Your task to perform on an android device: Go to Yahoo.com Image 0: 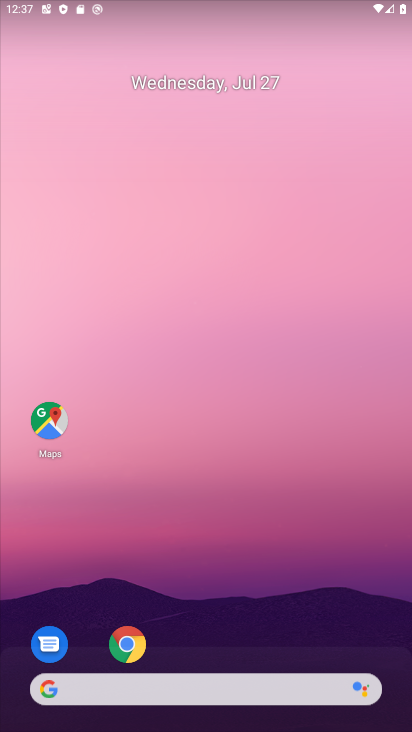
Step 0: click (128, 644)
Your task to perform on an android device: Go to Yahoo.com Image 1: 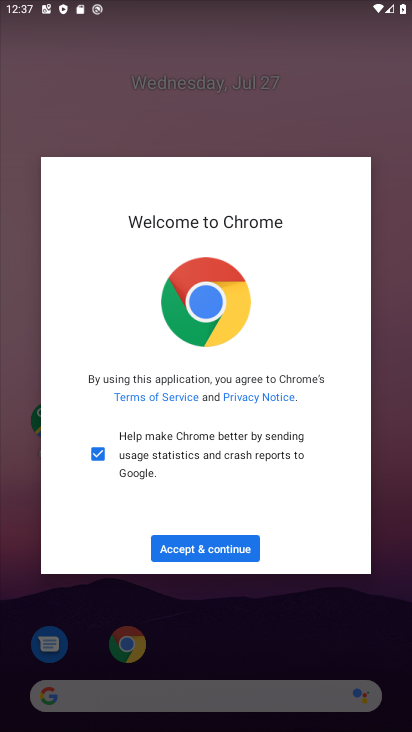
Step 1: click (214, 541)
Your task to perform on an android device: Go to Yahoo.com Image 2: 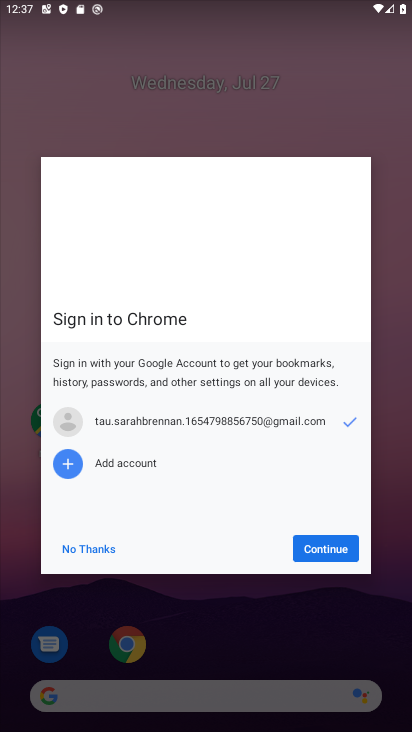
Step 2: click (322, 553)
Your task to perform on an android device: Go to Yahoo.com Image 3: 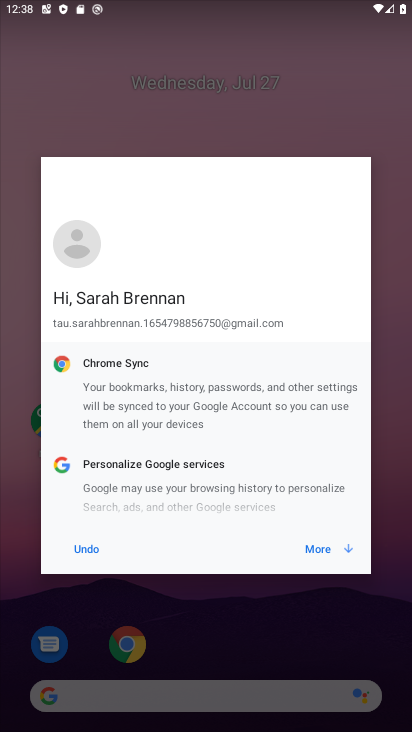
Step 3: click (323, 551)
Your task to perform on an android device: Go to Yahoo.com Image 4: 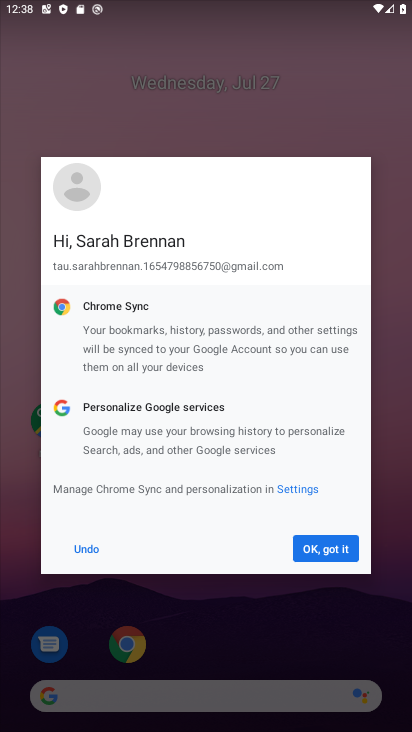
Step 4: click (323, 551)
Your task to perform on an android device: Go to Yahoo.com Image 5: 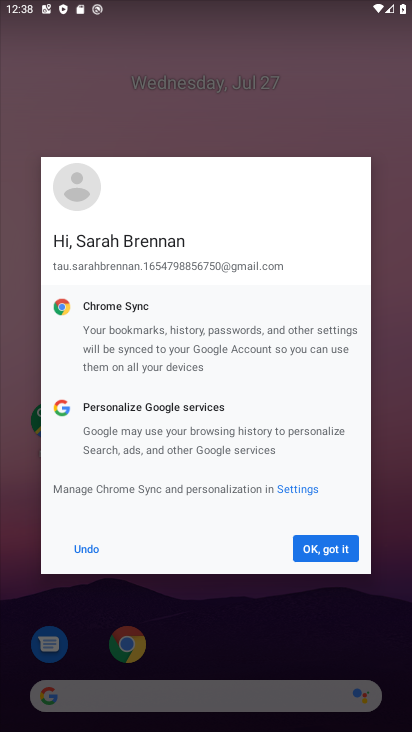
Step 5: click (323, 551)
Your task to perform on an android device: Go to Yahoo.com Image 6: 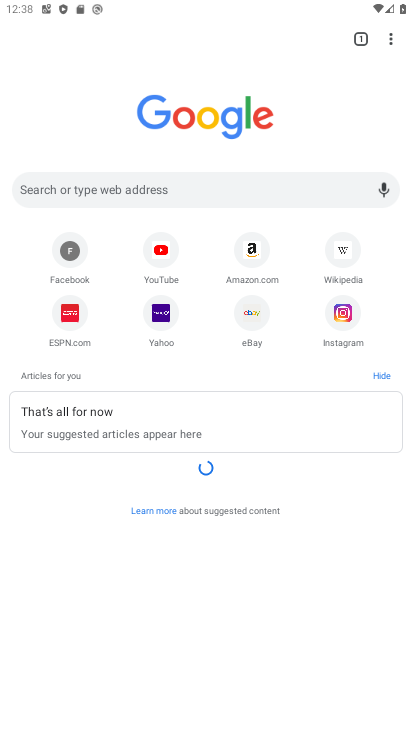
Step 6: click (157, 310)
Your task to perform on an android device: Go to Yahoo.com Image 7: 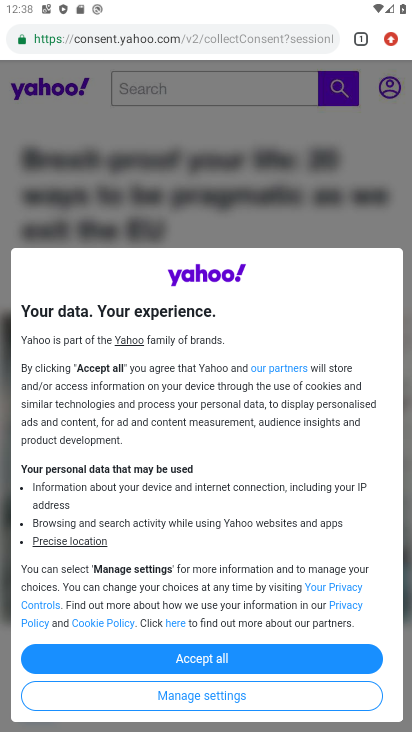
Step 7: task complete